Your task to perform on an android device: check android version Image 0: 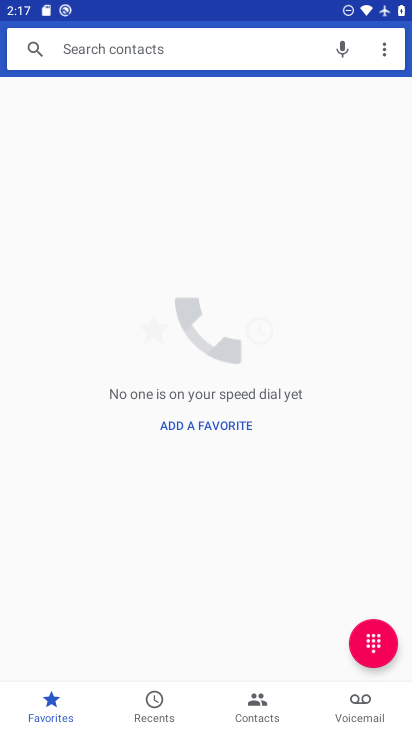
Step 0: press home button
Your task to perform on an android device: check android version Image 1: 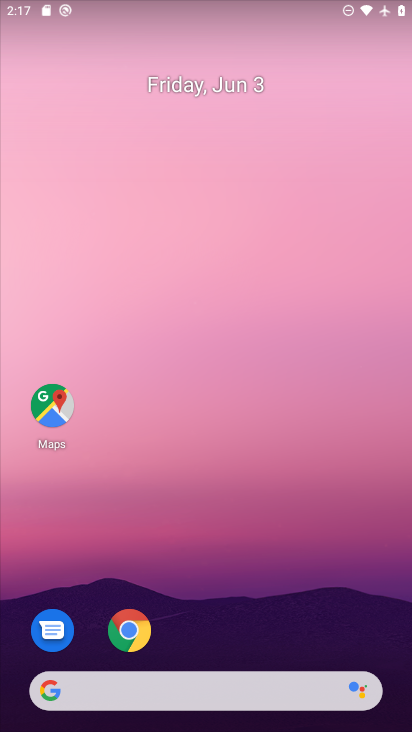
Step 1: drag from (240, 700) to (240, 122)
Your task to perform on an android device: check android version Image 2: 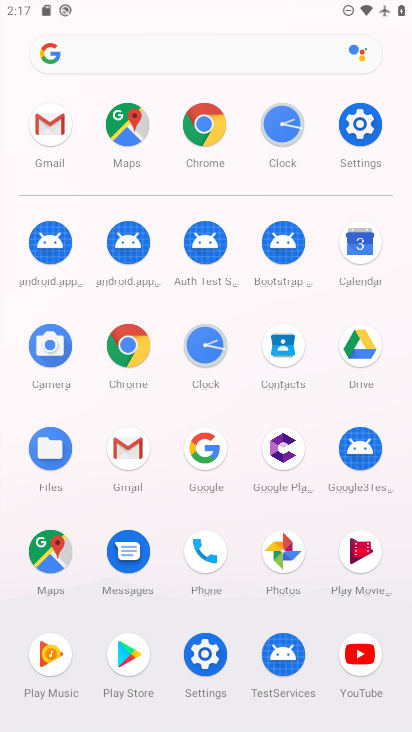
Step 2: click (358, 122)
Your task to perform on an android device: check android version Image 3: 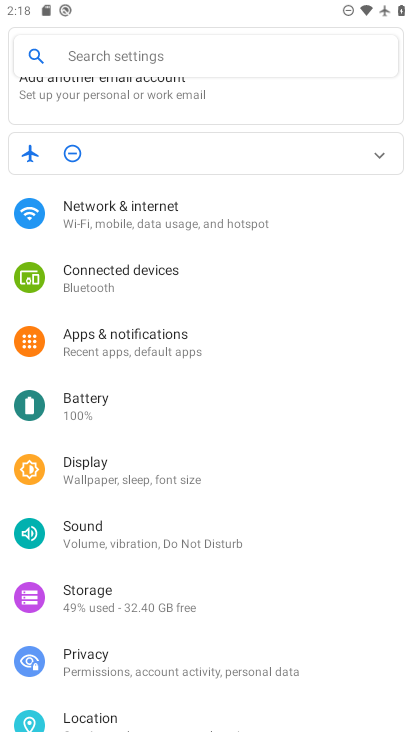
Step 3: task complete